Your task to perform on an android device: refresh tabs in the chrome app Image 0: 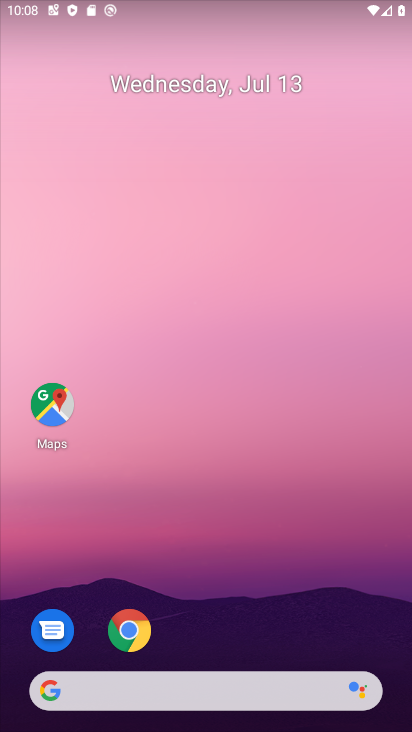
Step 0: drag from (350, 608) to (407, 117)
Your task to perform on an android device: refresh tabs in the chrome app Image 1: 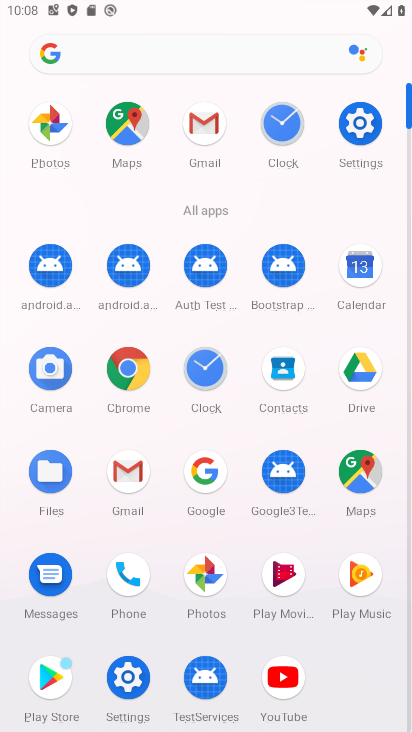
Step 1: click (130, 359)
Your task to perform on an android device: refresh tabs in the chrome app Image 2: 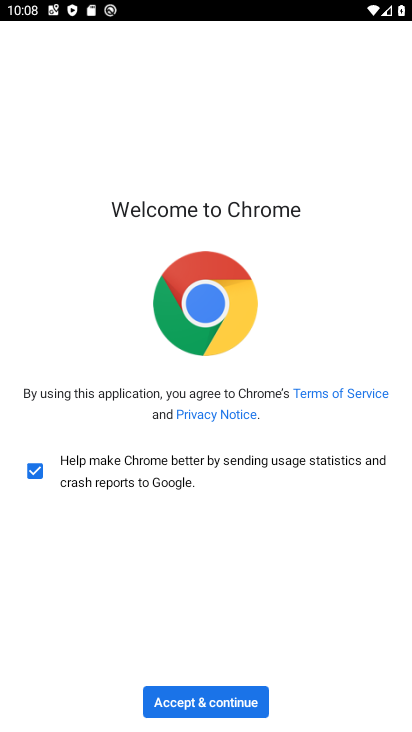
Step 2: click (250, 705)
Your task to perform on an android device: refresh tabs in the chrome app Image 3: 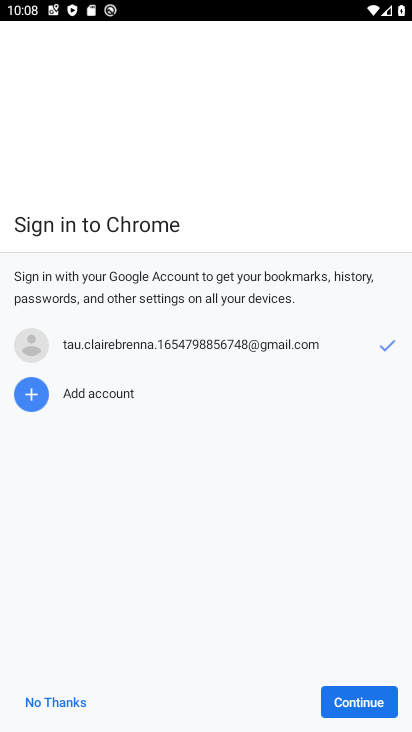
Step 3: click (377, 701)
Your task to perform on an android device: refresh tabs in the chrome app Image 4: 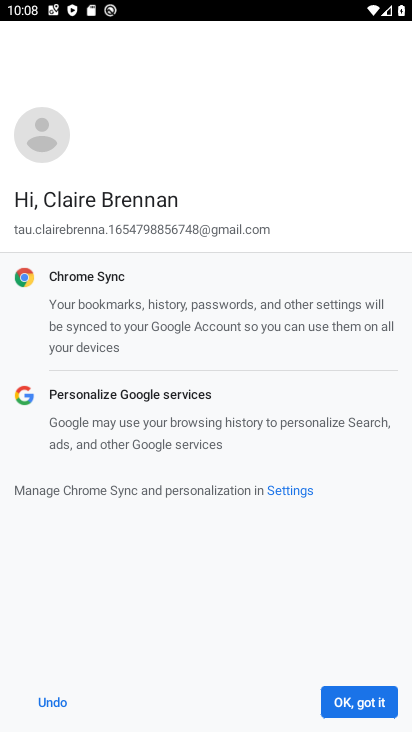
Step 4: click (377, 701)
Your task to perform on an android device: refresh tabs in the chrome app Image 5: 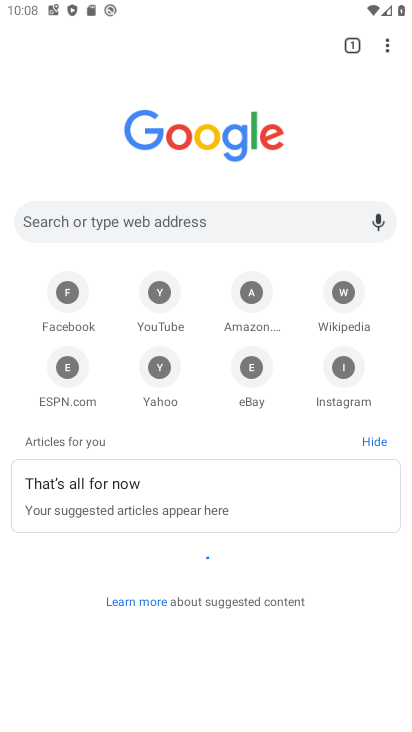
Step 5: click (396, 55)
Your task to perform on an android device: refresh tabs in the chrome app Image 6: 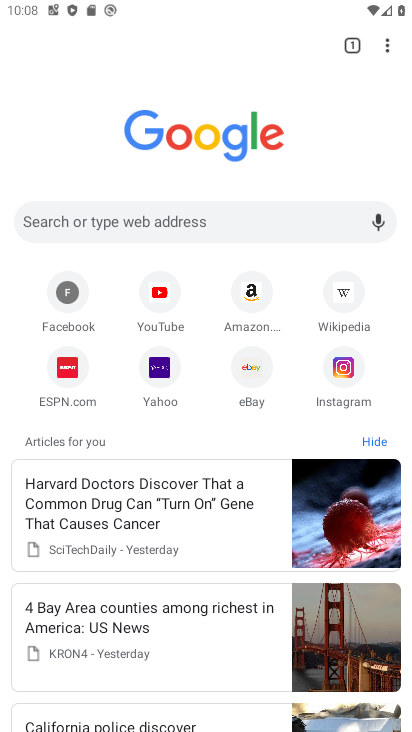
Step 6: task complete